Your task to perform on an android device: visit the assistant section in the google photos Image 0: 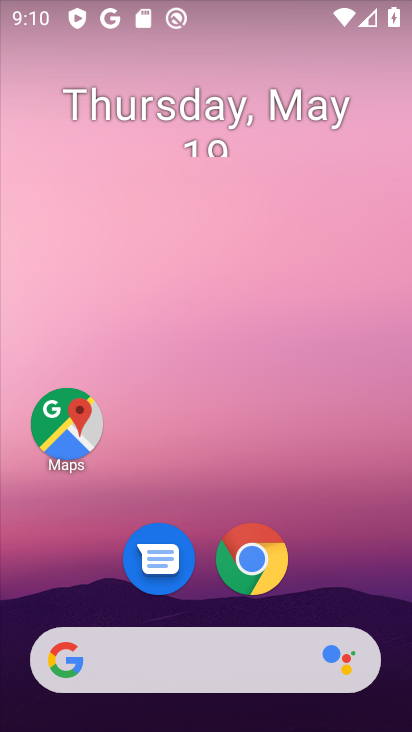
Step 0: drag from (326, 560) to (234, 74)
Your task to perform on an android device: visit the assistant section in the google photos Image 1: 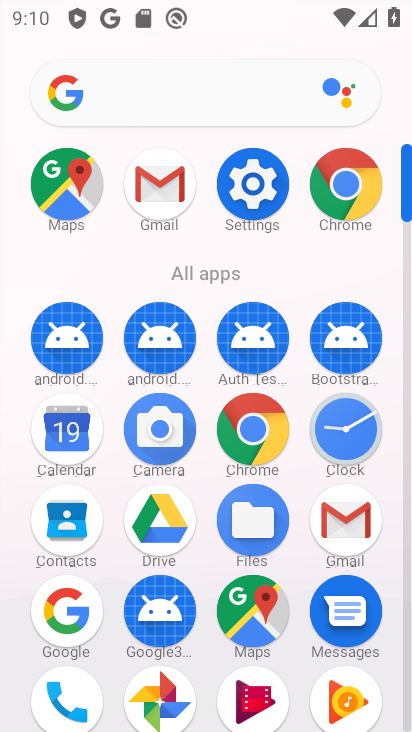
Step 1: drag from (278, 571) to (311, 303)
Your task to perform on an android device: visit the assistant section in the google photos Image 2: 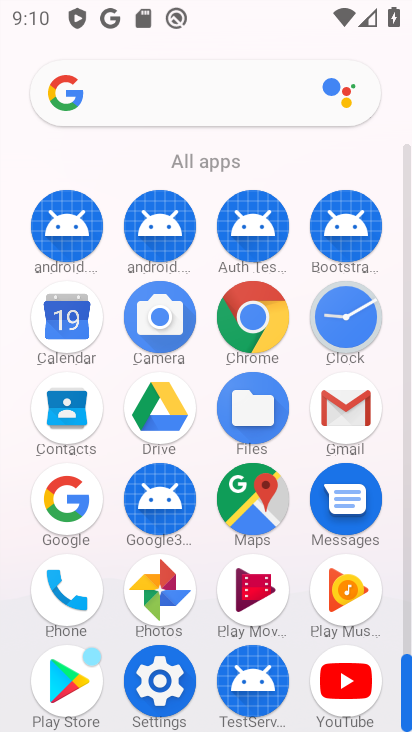
Step 2: click (173, 588)
Your task to perform on an android device: visit the assistant section in the google photos Image 3: 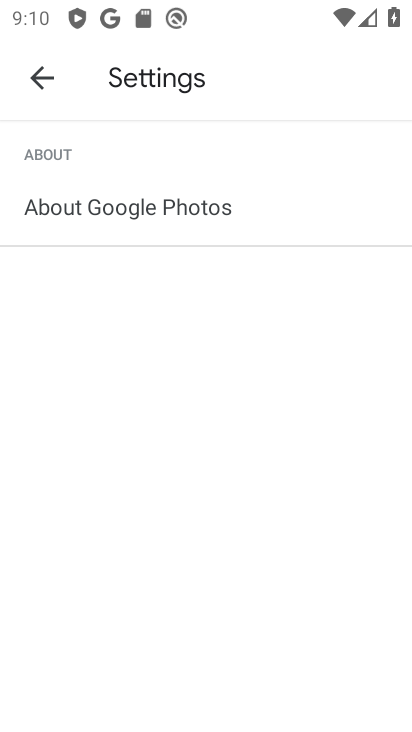
Step 3: click (48, 70)
Your task to perform on an android device: visit the assistant section in the google photos Image 4: 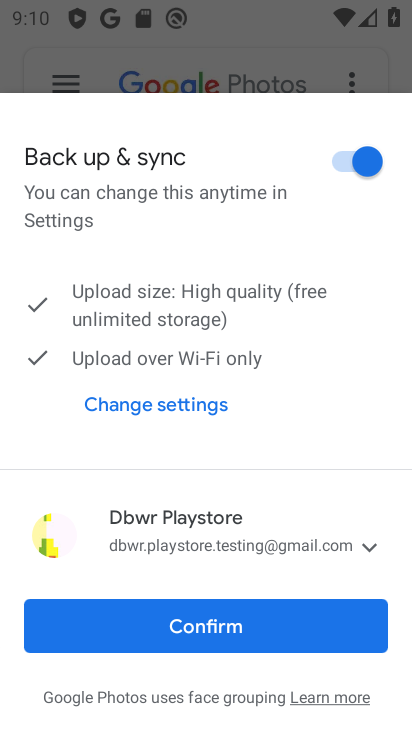
Step 4: click (193, 641)
Your task to perform on an android device: visit the assistant section in the google photos Image 5: 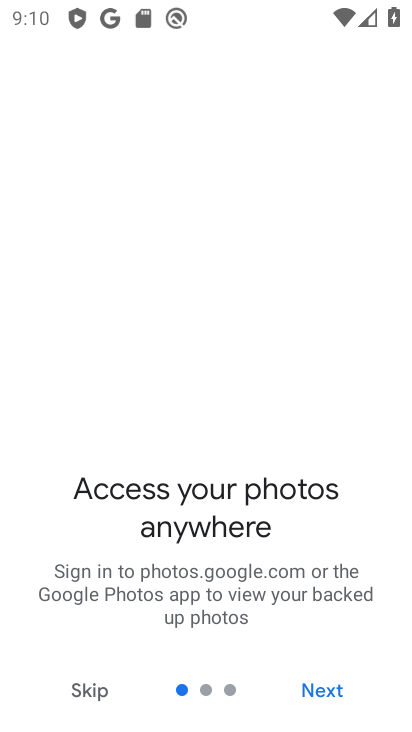
Step 5: click (318, 692)
Your task to perform on an android device: visit the assistant section in the google photos Image 6: 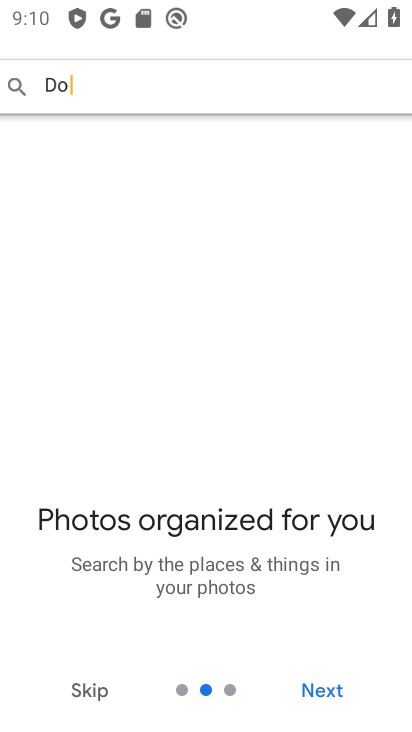
Step 6: click (318, 692)
Your task to perform on an android device: visit the assistant section in the google photos Image 7: 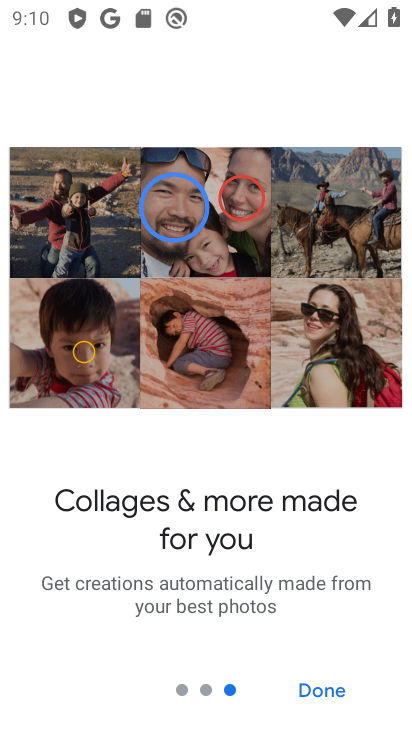
Step 7: click (318, 692)
Your task to perform on an android device: visit the assistant section in the google photos Image 8: 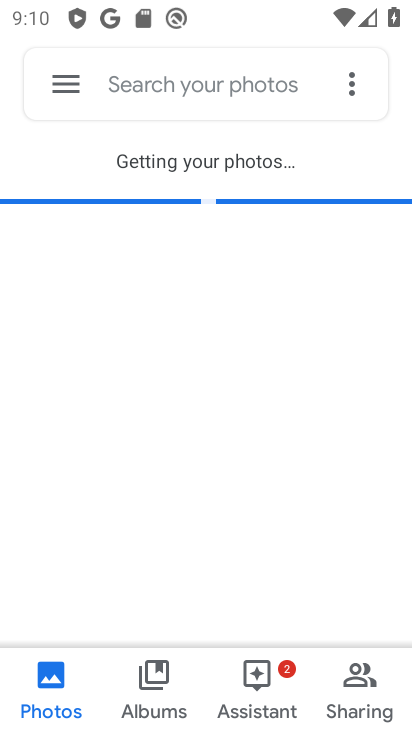
Step 8: click (278, 680)
Your task to perform on an android device: visit the assistant section in the google photos Image 9: 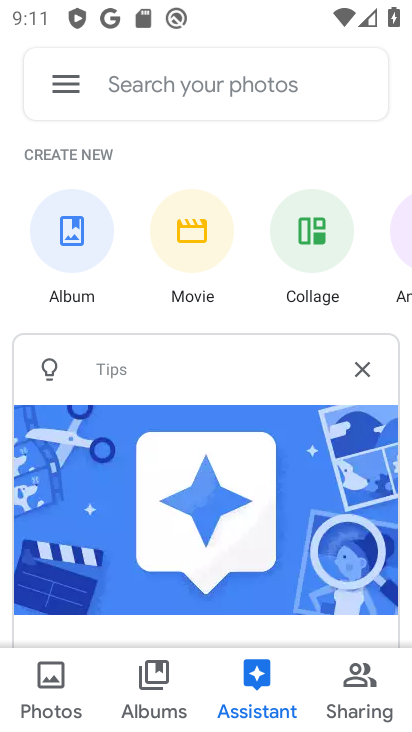
Step 9: task complete